Your task to perform on an android device: Open Reddit.com Image 0: 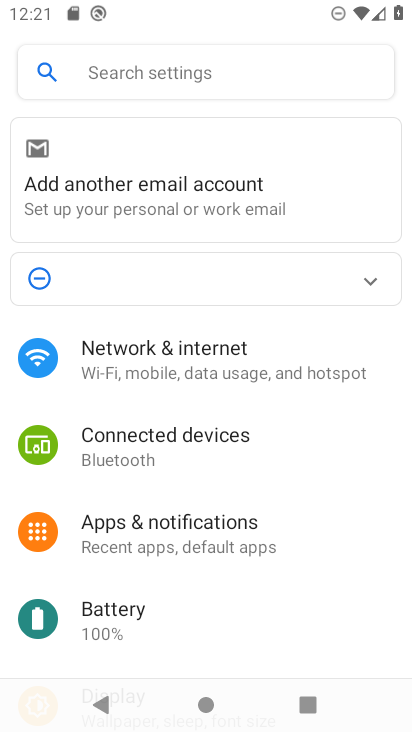
Step 0: press home button
Your task to perform on an android device: Open Reddit.com Image 1: 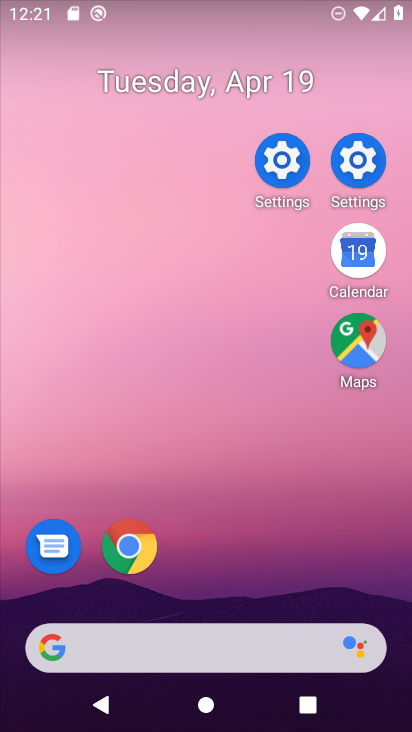
Step 1: drag from (293, 716) to (220, 88)
Your task to perform on an android device: Open Reddit.com Image 2: 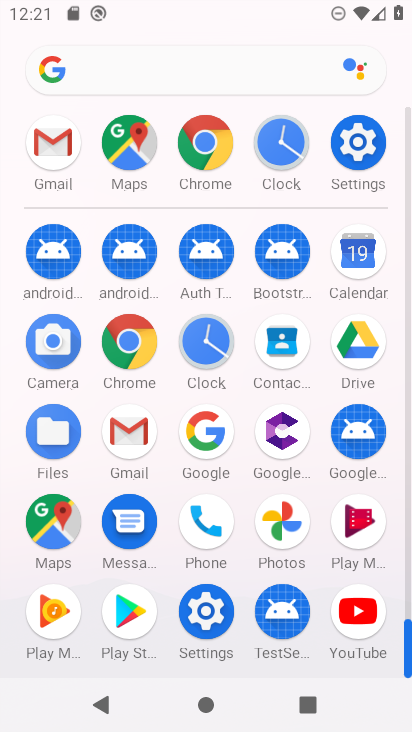
Step 2: click (191, 148)
Your task to perform on an android device: Open Reddit.com Image 3: 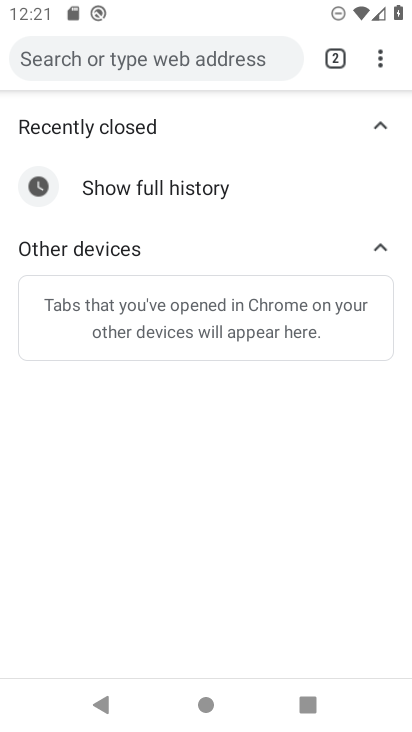
Step 3: click (375, 52)
Your task to perform on an android device: Open Reddit.com Image 4: 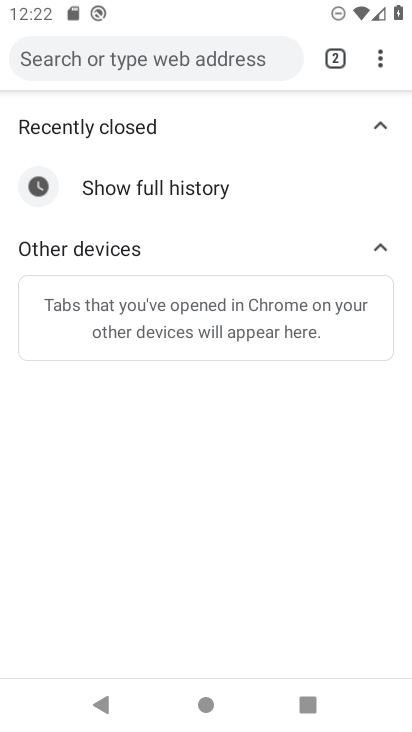
Step 4: click (375, 52)
Your task to perform on an android device: Open Reddit.com Image 5: 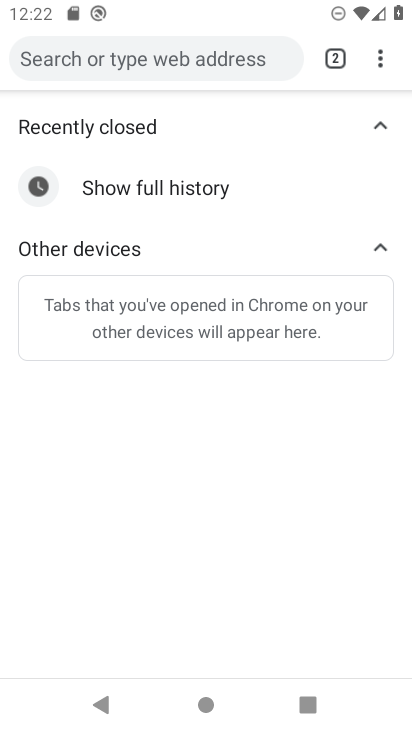
Step 5: click (375, 52)
Your task to perform on an android device: Open Reddit.com Image 6: 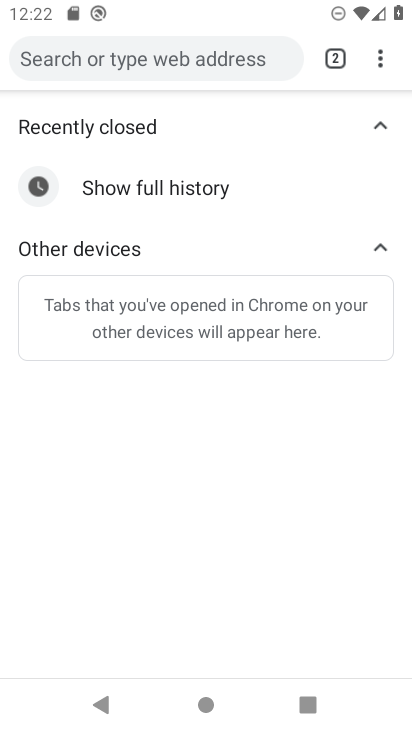
Step 6: click (383, 53)
Your task to perform on an android device: Open Reddit.com Image 7: 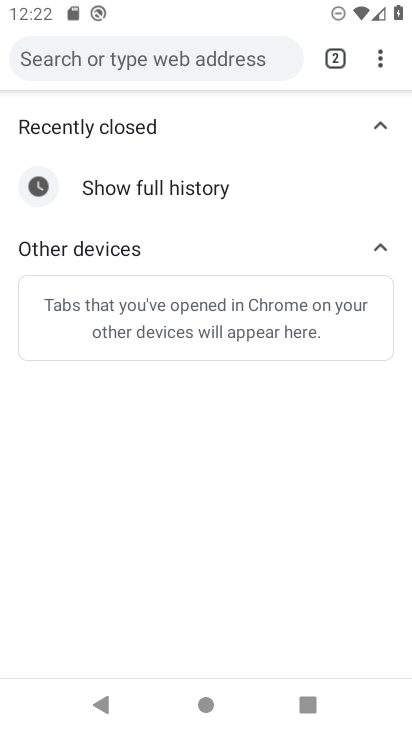
Step 7: click (375, 61)
Your task to perform on an android device: Open Reddit.com Image 8: 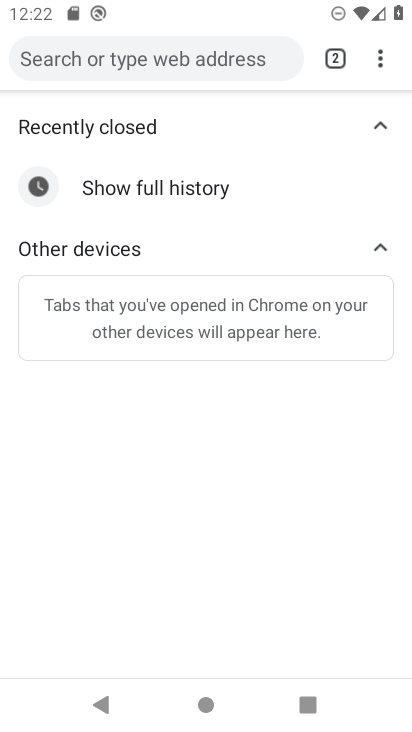
Step 8: click (376, 60)
Your task to perform on an android device: Open Reddit.com Image 9: 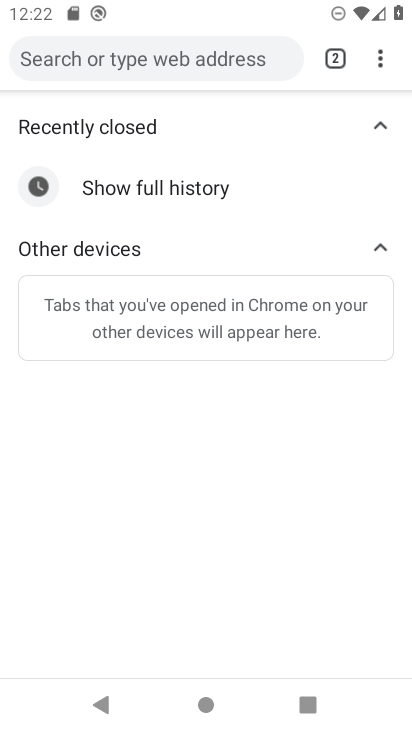
Step 9: click (371, 67)
Your task to perform on an android device: Open Reddit.com Image 10: 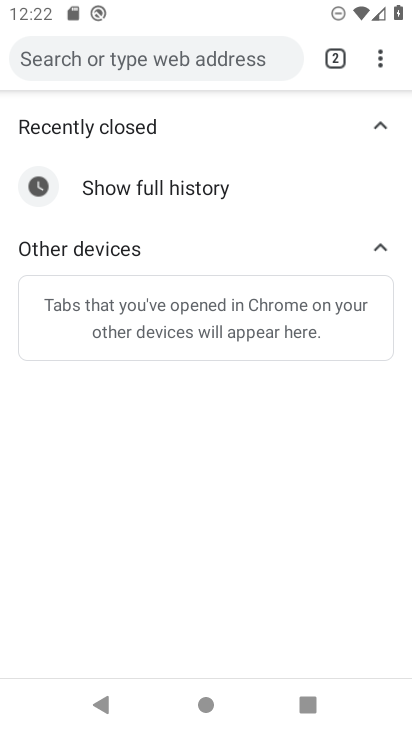
Step 10: click (374, 64)
Your task to perform on an android device: Open Reddit.com Image 11: 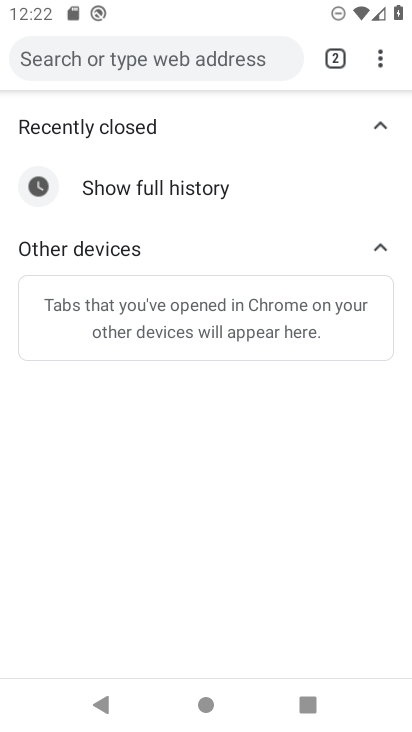
Step 11: click (378, 57)
Your task to perform on an android device: Open Reddit.com Image 12: 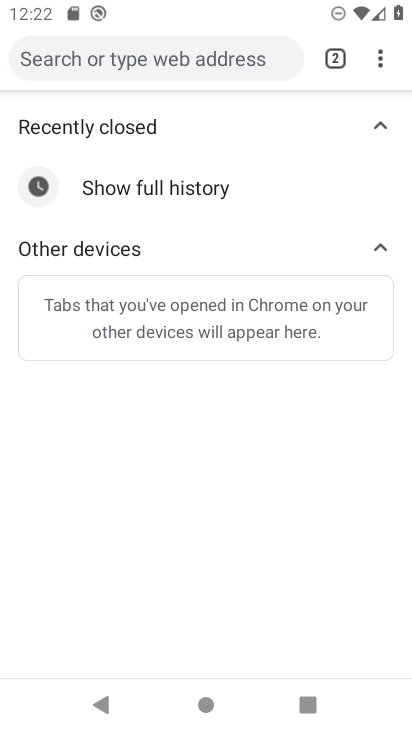
Step 12: click (379, 60)
Your task to perform on an android device: Open Reddit.com Image 13: 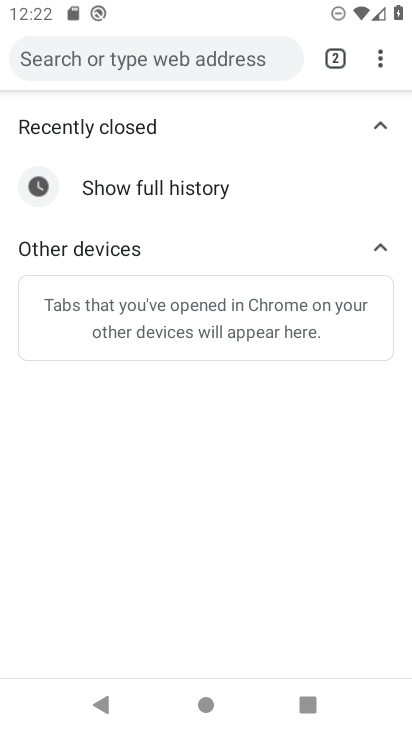
Step 13: click (379, 61)
Your task to perform on an android device: Open Reddit.com Image 14: 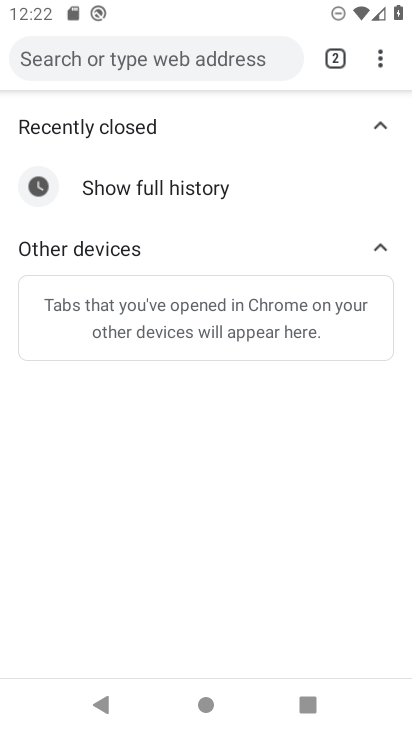
Step 14: click (382, 61)
Your task to perform on an android device: Open Reddit.com Image 15: 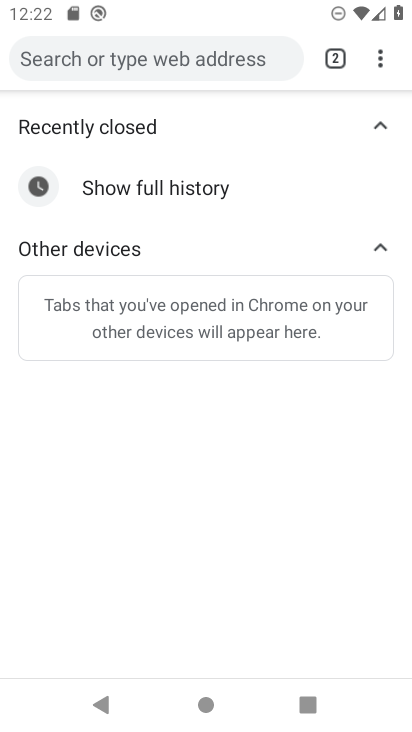
Step 15: click (382, 61)
Your task to perform on an android device: Open Reddit.com Image 16: 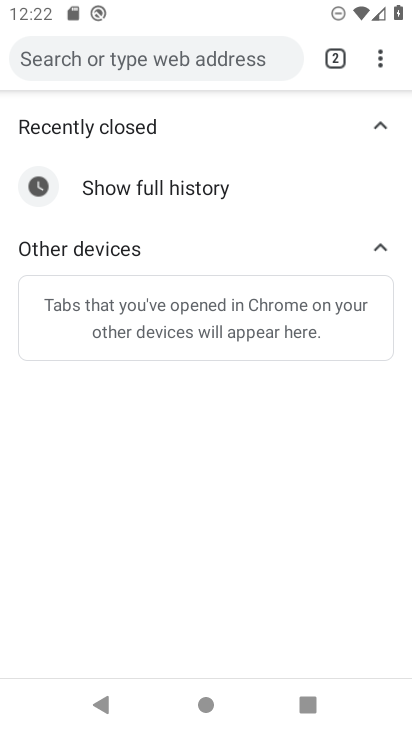
Step 16: click (378, 46)
Your task to perform on an android device: Open Reddit.com Image 17: 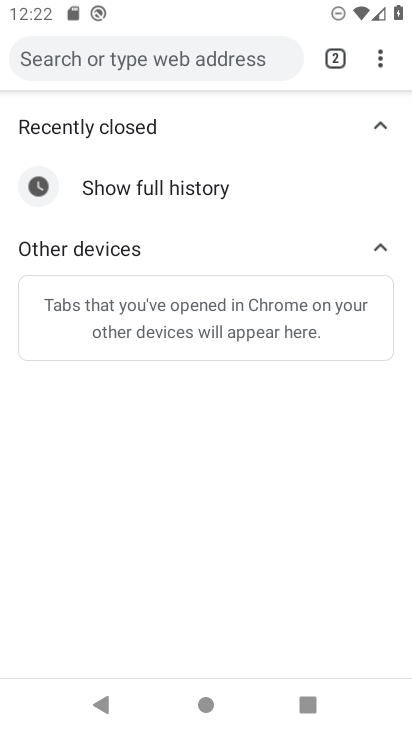
Step 17: click (369, 47)
Your task to perform on an android device: Open Reddit.com Image 18: 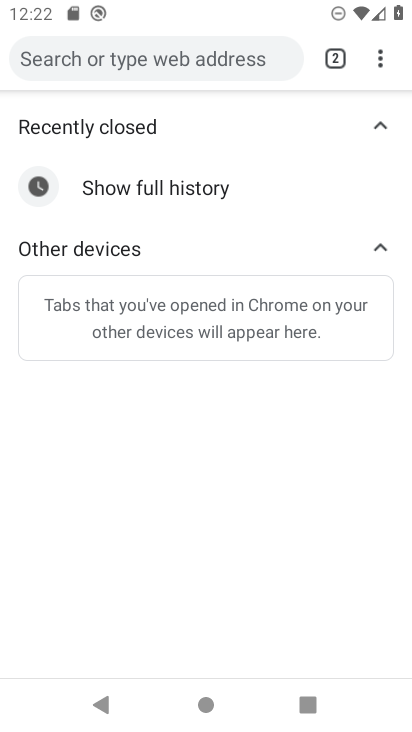
Step 18: click (370, 54)
Your task to perform on an android device: Open Reddit.com Image 19: 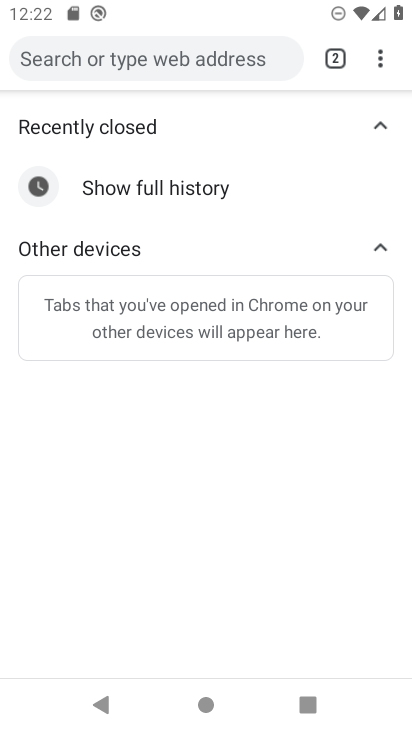
Step 19: click (375, 52)
Your task to perform on an android device: Open Reddit.com Image 20: 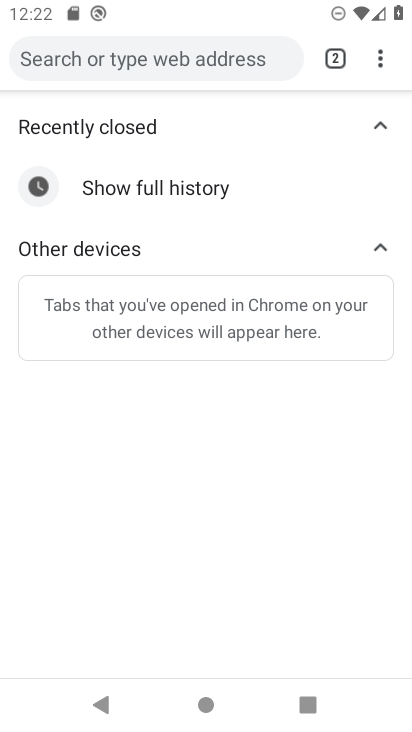
Step 20: click (382, 52)
Your task to perform on an android device: Open Reddit.com Image 21: 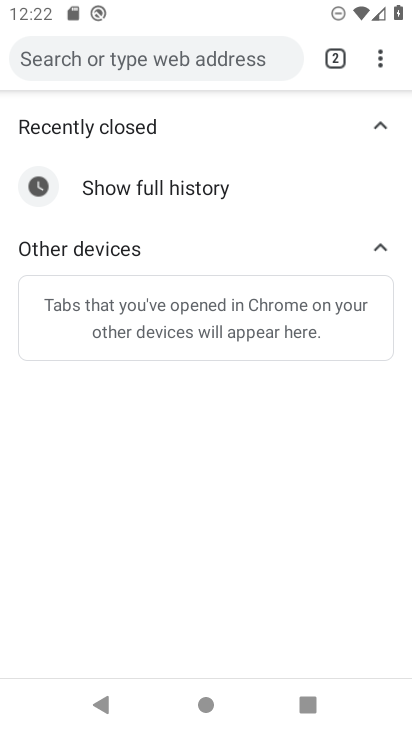
Step 21: click (378, 57)
Your task to perform on an android device: Open Reddit.com Image 22: 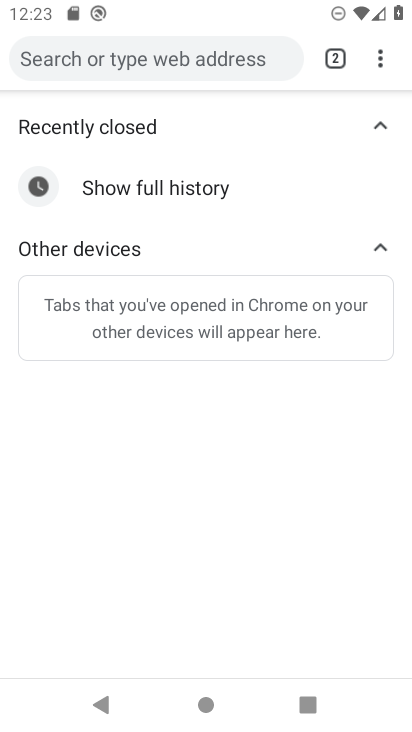
Step 22: click (378, 57)
Your task to perform on an android device: Open Reddit.com Image 23: 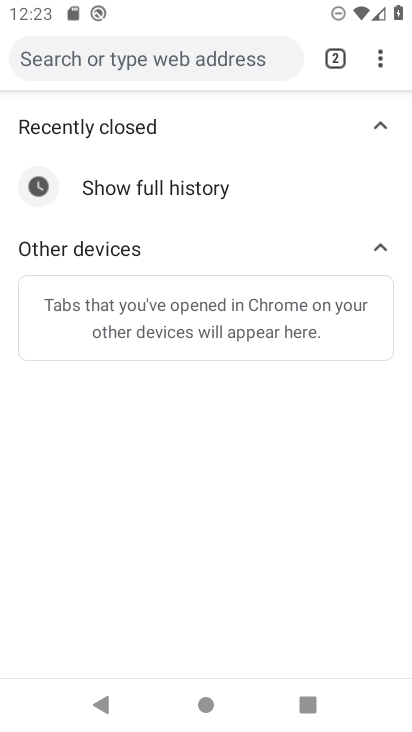
Step 23: click (370, 51)
Your task to perform on an android device: Open Reddit.com Image 24: 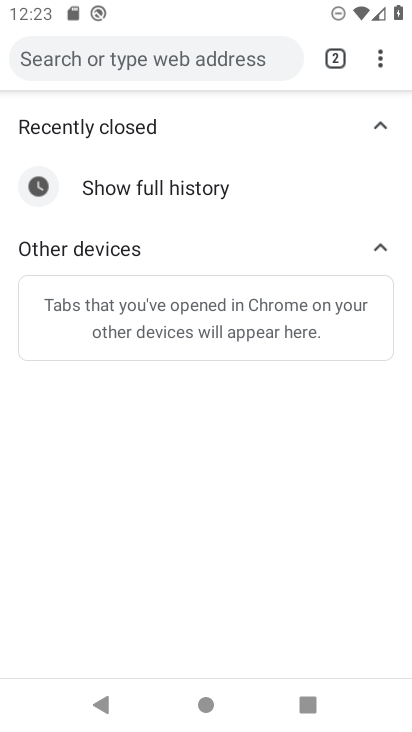
Step 24: click (370, 51)
Your task to perform on an android device: Open Reddit.com Image 25: 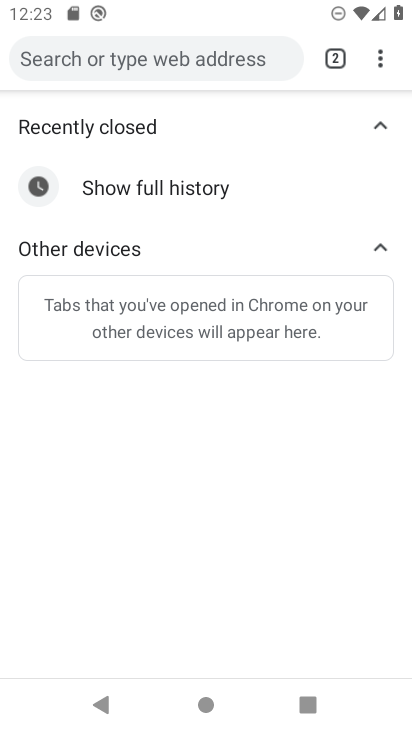
Step 25: click (372, 51)
Your task to perform on an android device: Open Reddit.com Image 26: 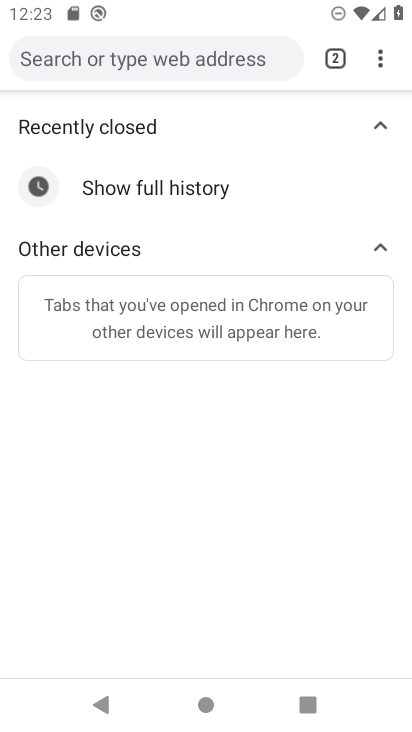
Step 26: click (378, 61)
Your task to perform on an android device: Open Reddit.com Image 27: 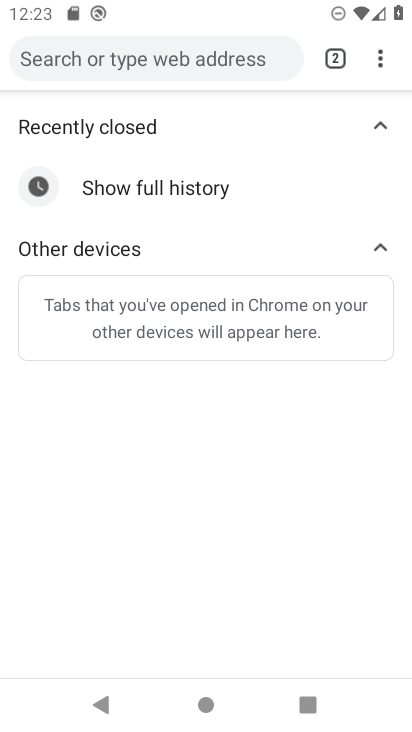
Step 27: click (378, 61)
Your task to perform on an android device: Open Reddit.com Image 28: 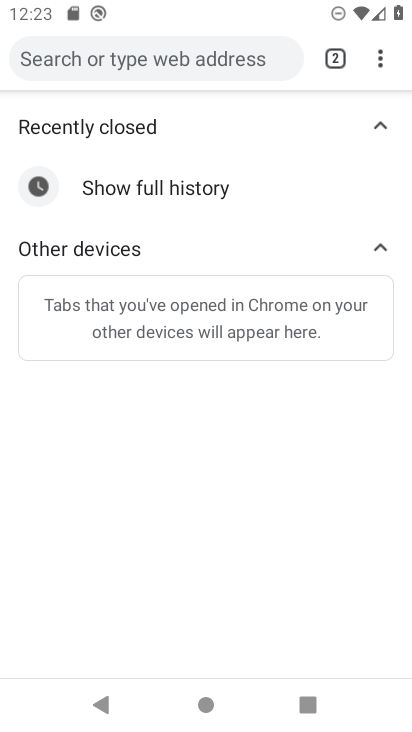
Step 28: click (379, 61)
Your task to perform on an android device: Open Reddit.com Image 29: 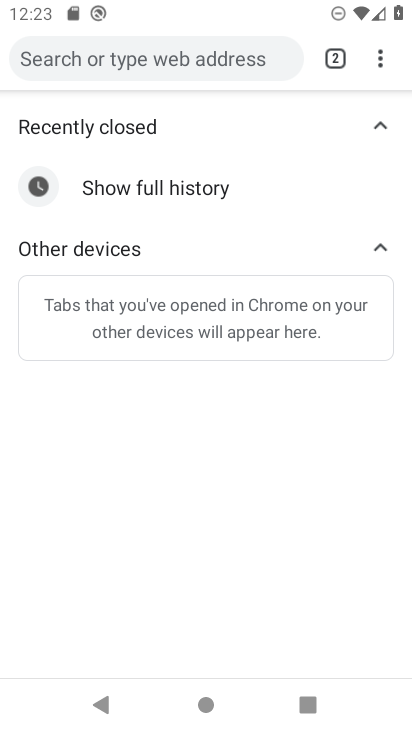
Step 29: click (379, 61)
Your task to perform on an android device: Open Reddit.com Image 30: 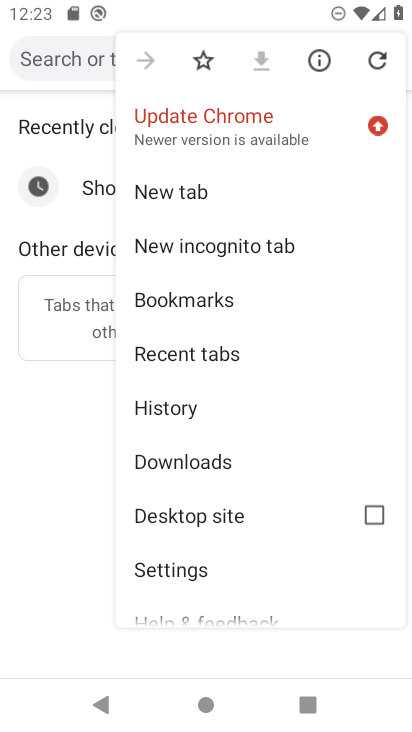
Step 30: click (180, 187)
Your task to perform on an android device: Open Reddit.com Image 31: 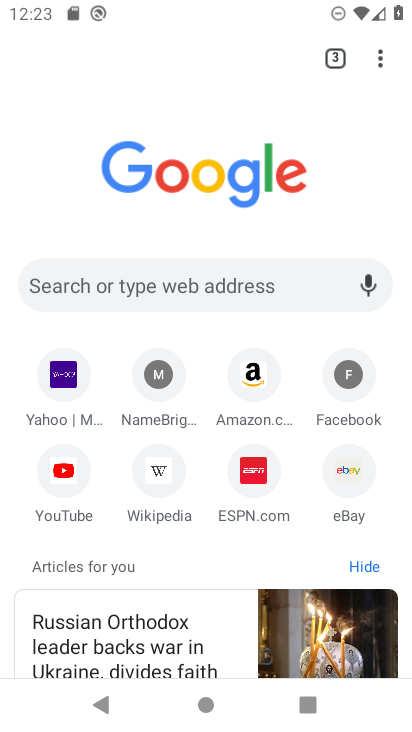
Step 31: click (97, 272)
Your task to perform on an android device: Open Reddit.com Image 32: 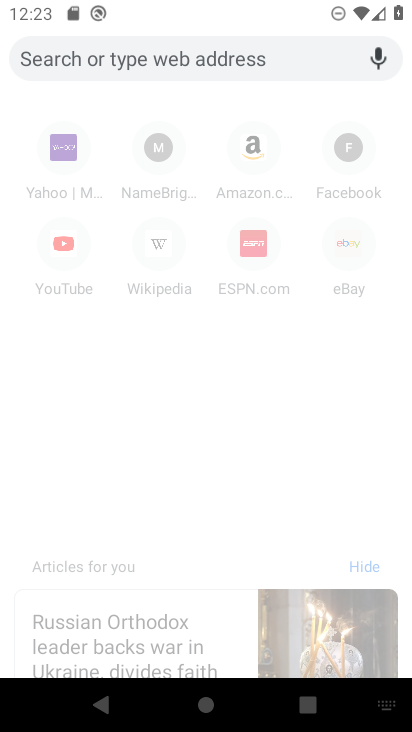
Step 32: type "www.reddit.com"
Your task to perform on an android device: Open Reddit.com Image 33: 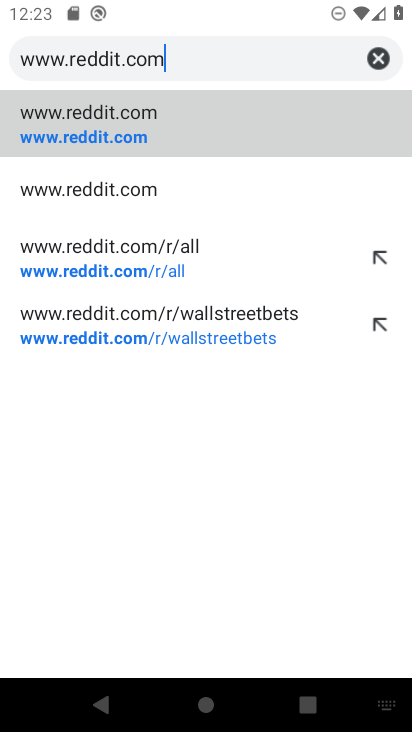
Step 33: click (137, 136)
Your task to perform on an android device: Open Reddit.com Image 34: 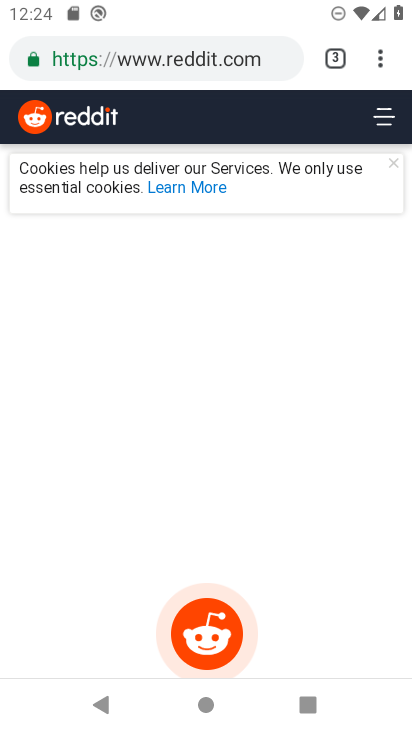
Step 34: task complete